Your task to perform on an android device: Open eBay Image 0: 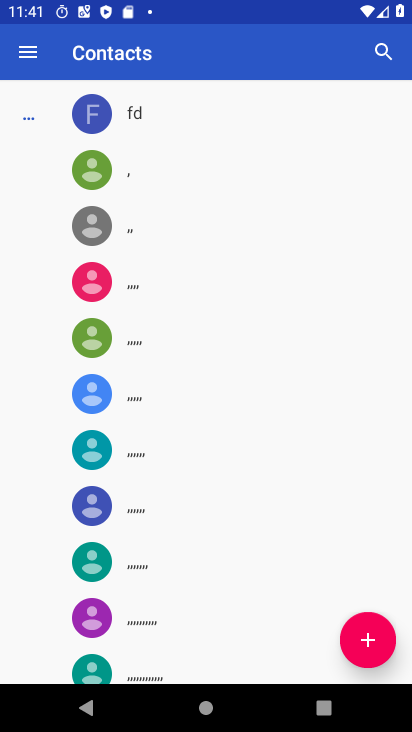
Step 0: press home button
Your task to perform on an android device: Open eBay Image 1: 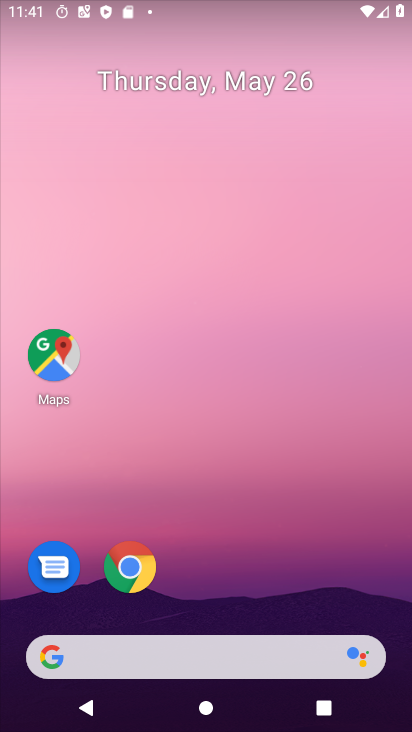
Step 1: click (256, 667)
Your task to perform on an android device: Open eBay Image 2: 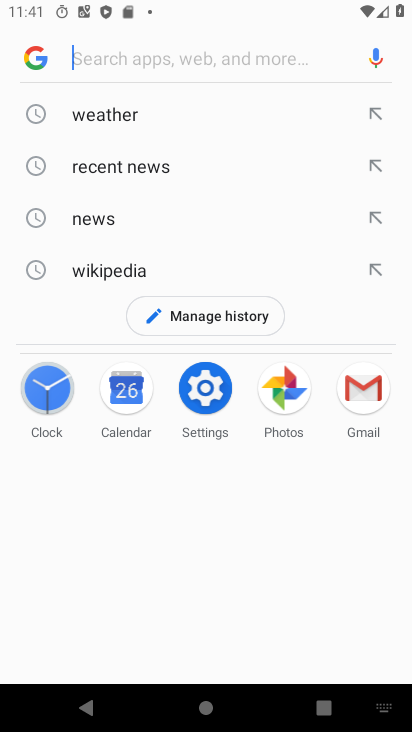
Step 2: click (250, 61)
Your task to perform on an android device: Open eBay Image 3: 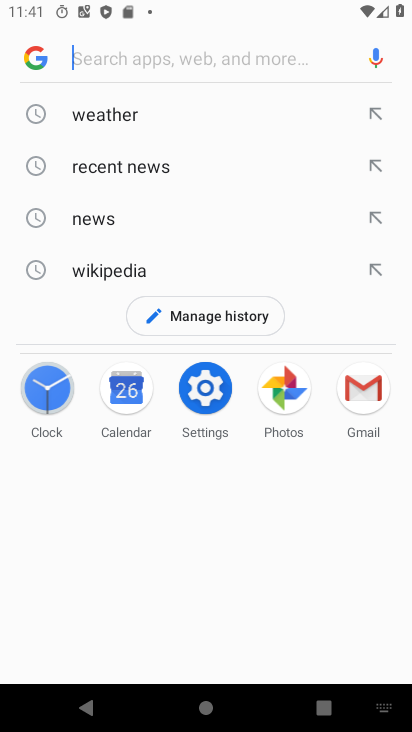
Step 3: type "ebay"
Your task to perform on an android device: Open eBay Image 4: 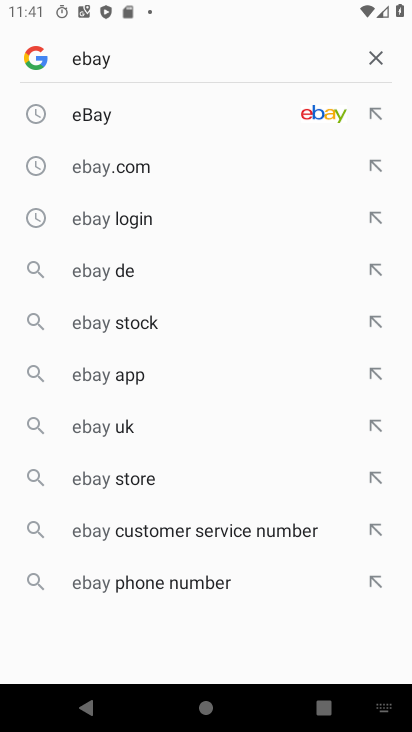
Step 4: click (253, 110)
Your task to perform on an android device: Open eBay Image 5: 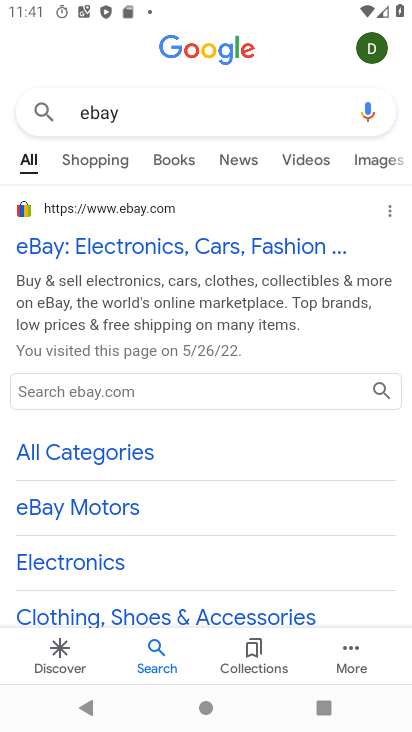
Step 5: click (146, 204)
Your task to perform on an android device: Open eBay Image 6: 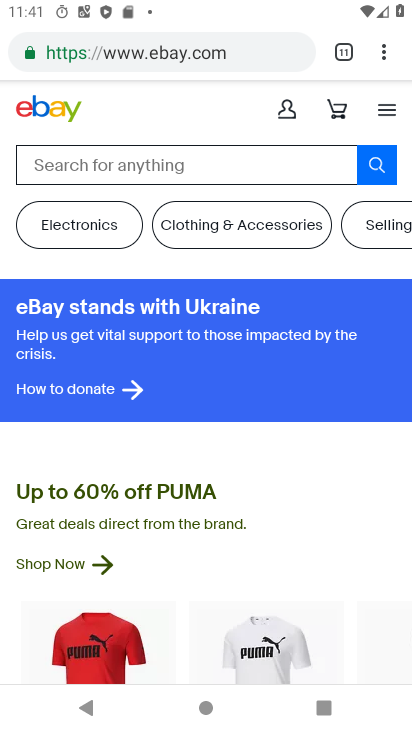
Step 6: task complete